Your task to perform on an android device: make emails show in primary in the gmail app Image 0: 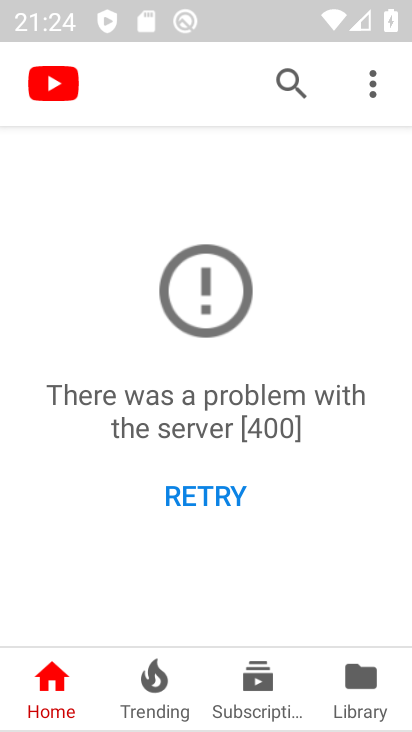
Step 0: press home button
Your task to perform on an android device: make emails show in primary in the gmail app Image 1: 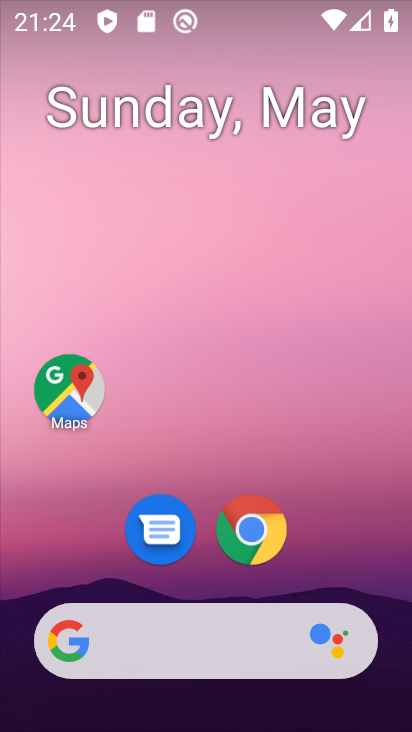
Step 1: drag from (216, 584) to (316, 5)
Your task to perform on an android device: make emails show in primary in the gmail app Image 2: 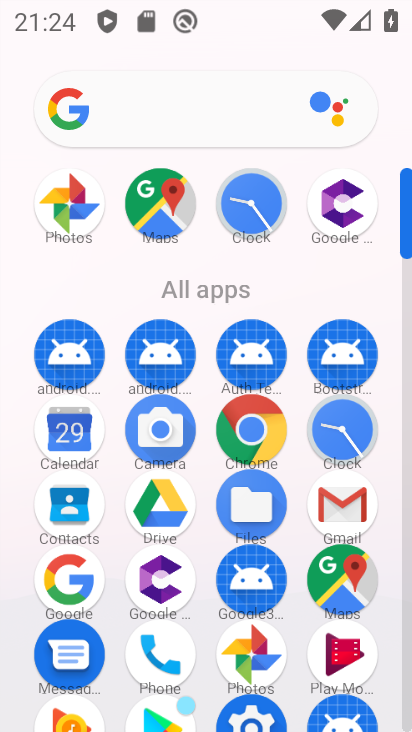
Step 2: click (329, 500)
Your task to perform on an android device: make emails show in primary in the gmail app Image 3: 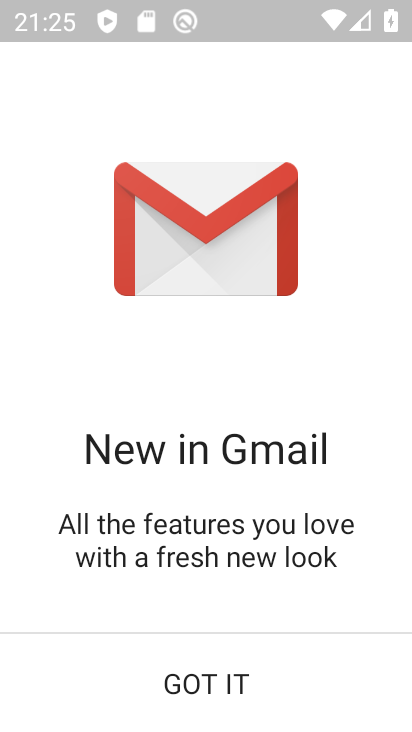
Step 3: click (219, 703)
Your task to perform on an android device: make emails show in primary in the gmail app Image 4: 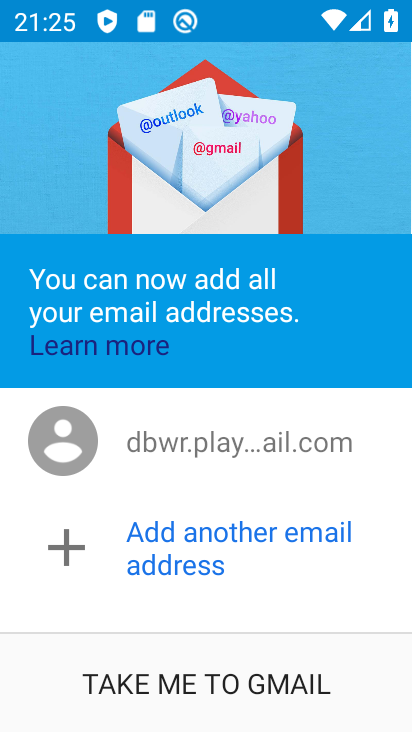
Step 4: click (210, 669)
Your task to perform on an android device: make emails show in primary in the gmail app Image 5: 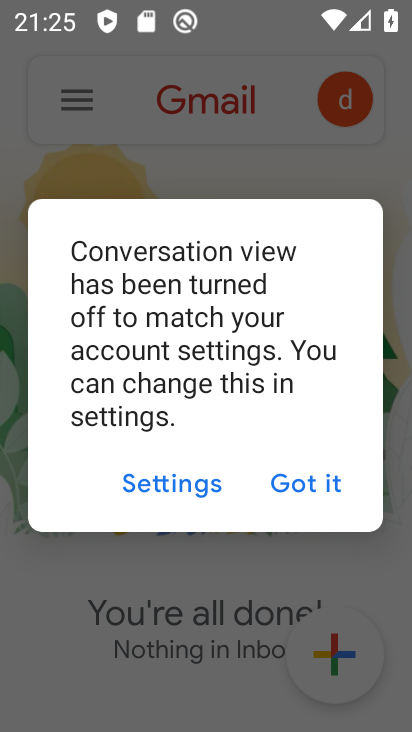
Step 5: click (292, 489)
Your task to perform on an android device: make emails show in primary in the gmail app Image 6: 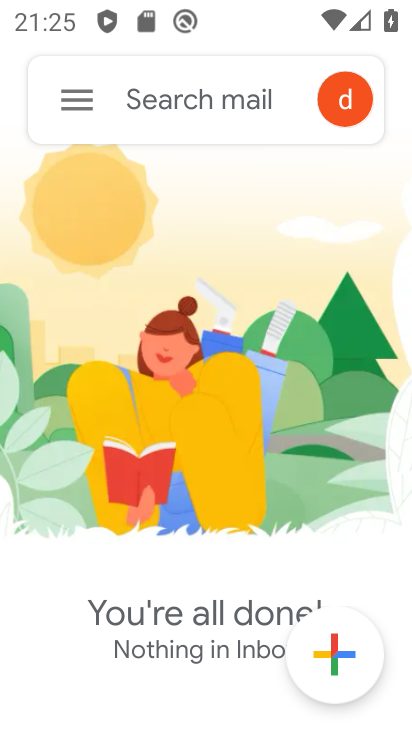
Step 6: click (74, 90)
Your task to perform on an android device: make emails show in primary in the gmail app Image 7: 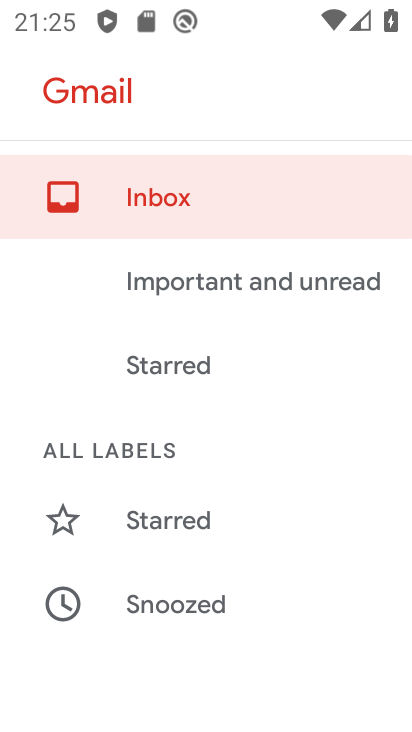
Step 7: drag from (90, 599) to (181, 162)
Your task to perform on an android device: make emails show in primary in the gmail app Image 8: 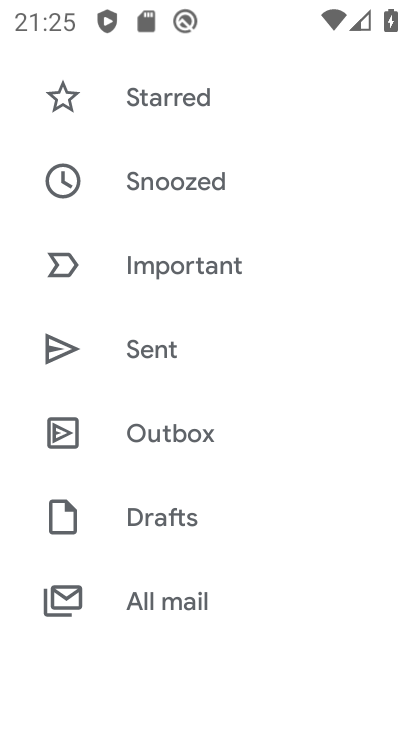
Step 8: drag from (157, 611) to (253, 44)
Your task to perform on an android device: make emails show in primary in the gmail app Image 9: 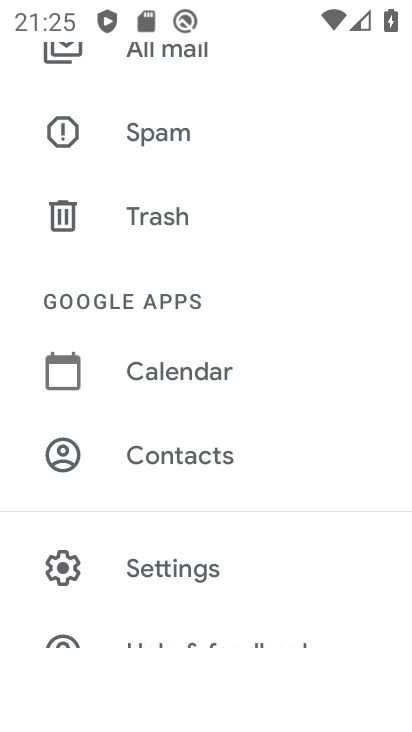
Step 9: click (146, 564)
Your task to perform on an android device: make emails show in primary in the gmail app Image 10: 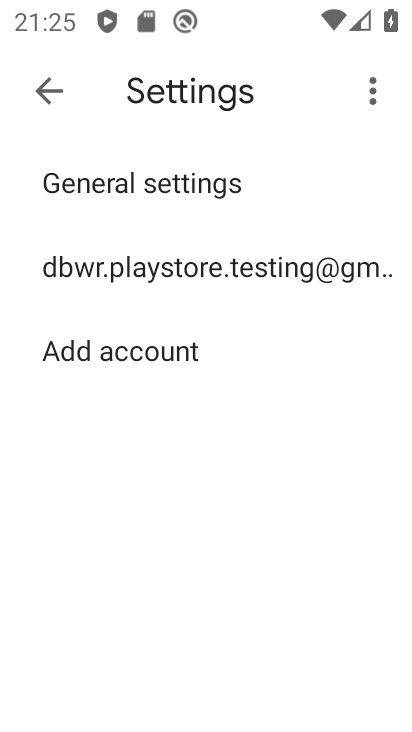
Step 10: click (150, 277)
Your task to perform on an android device: make emails show in primary in the gmail app Image 11: 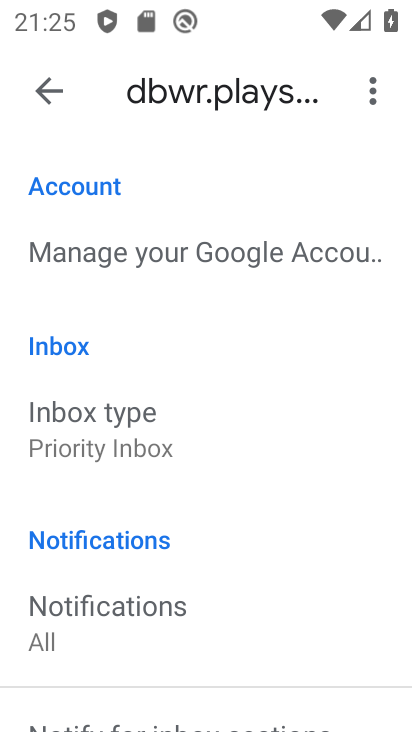
Step 11: click (176, 447)
Your task to perform on an android device: make emails show in primary in the gmail app Image 12: 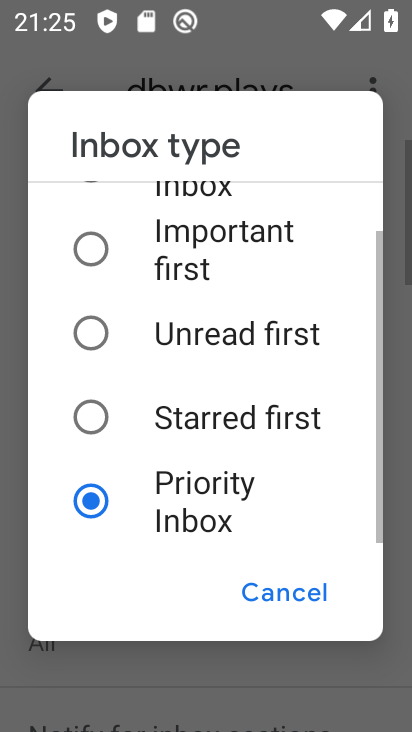
Step 12: drag from (175, 239) to (196, 510)
Your task to perform on an android device: make emails show in primary in the gmail app Image 13: 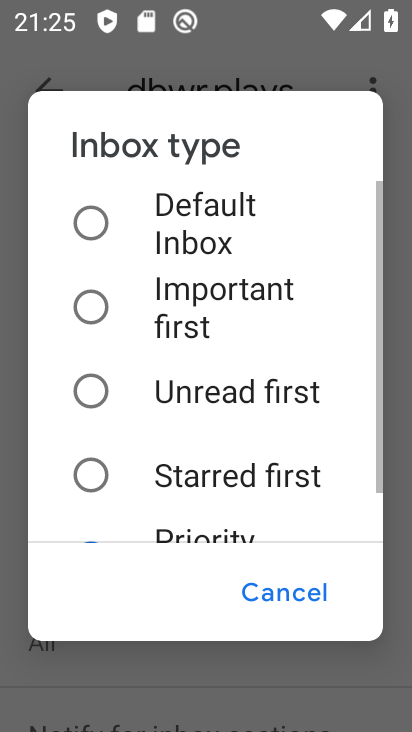
Step 13: click (240, 223)
Your task to perform on an android device: make emails show in primary in the gmail app Image 14: 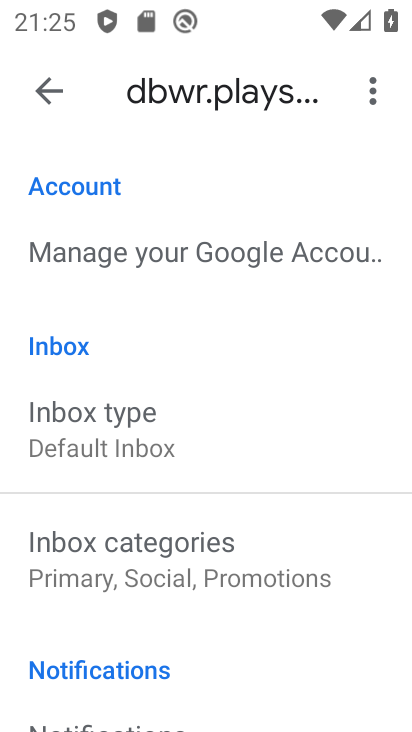
Step 14: task complete